Your task to perform on an android device: Open Amazon Image 0: 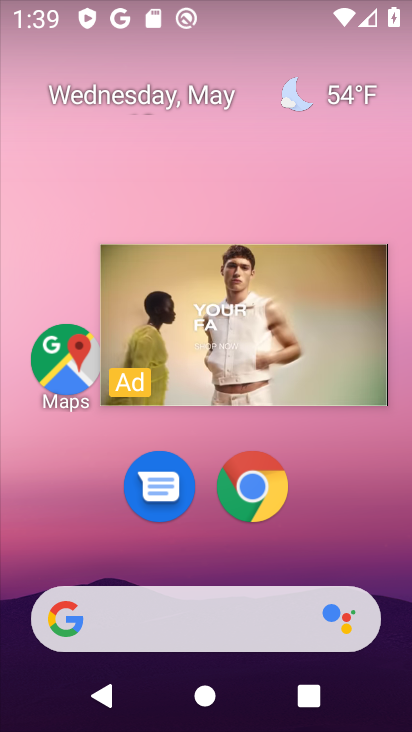
Step 0: click (349, 280)
Your task to perform on an android device: Open Amazon Image 1: 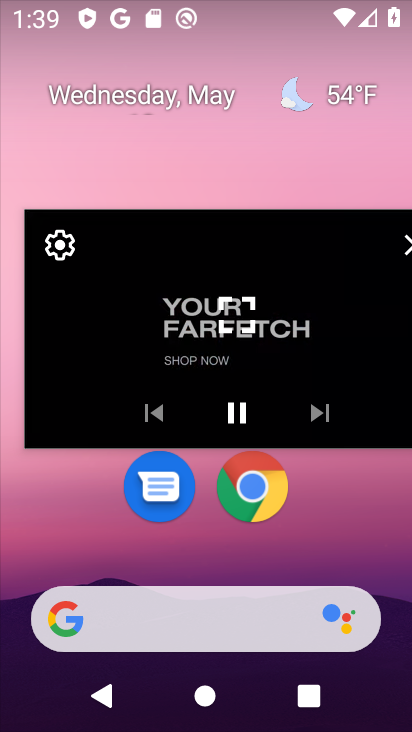
Step 1: click (411, 247)
Your task to perform on an android device: Open Amazon Image 2: 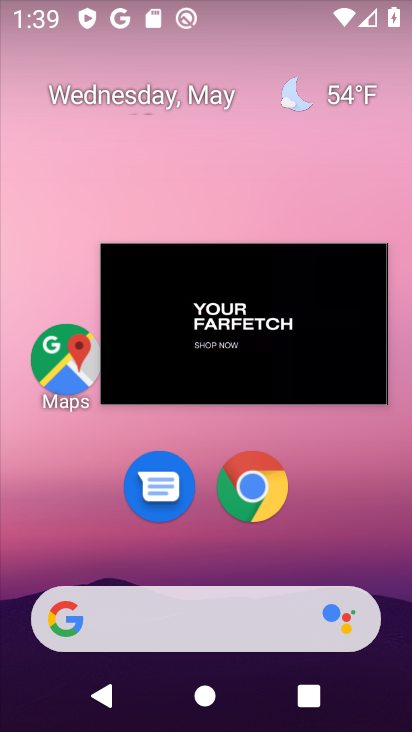
Step 2: drag from (347, 267) to (367, 686)
Your task to perform on an android device: Open Amazon Image 3: 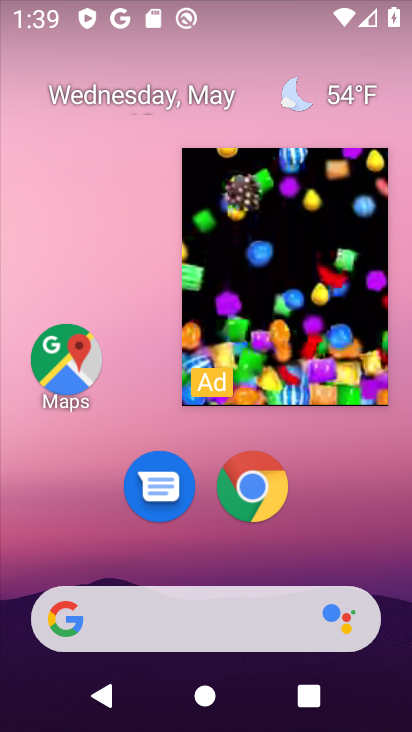
Step 3: drag from (280, 228) to (368, 685)
Your task to perform on an android device: Open Amazon Image 4: 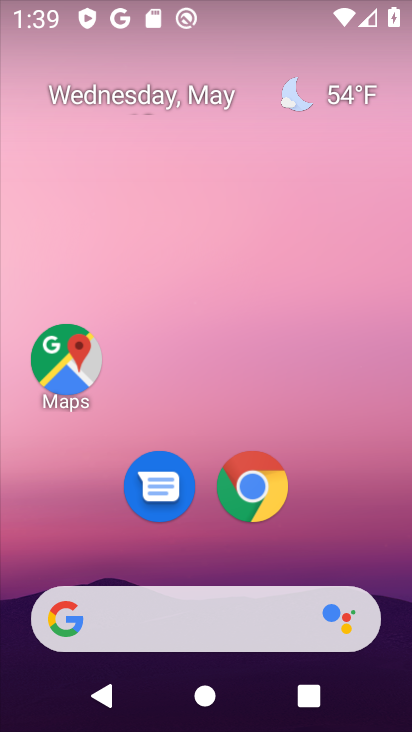
Step 4: click (247, 500)
Your task to perform on an android device: Open Amazon Image 5: 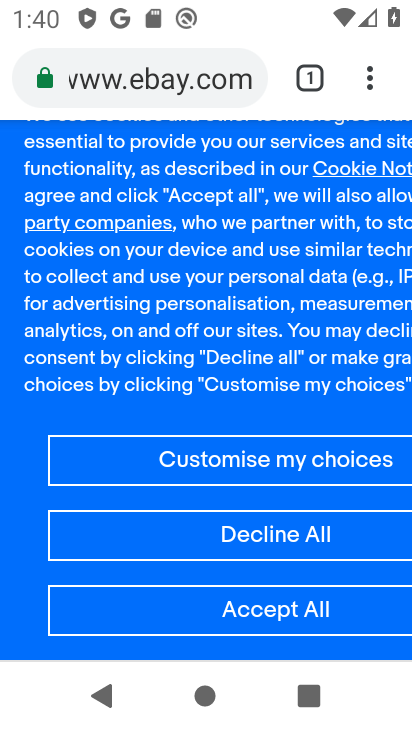
Step 5: click (371, 68)
Your task to perform on an android device: Open Amazon Image 6: 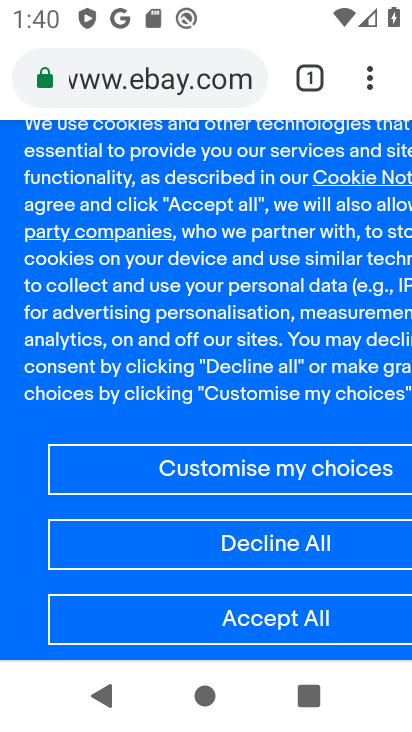
Step 6: click (377, 79)
Your task to perform on an android device: Open Amazon Image 7: 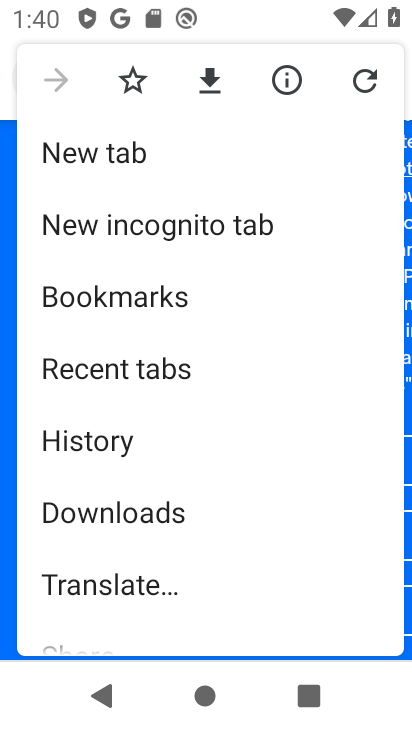
Step 7: click (132, 136)
Your task to perform on an android device: Open Amazon Image 8: 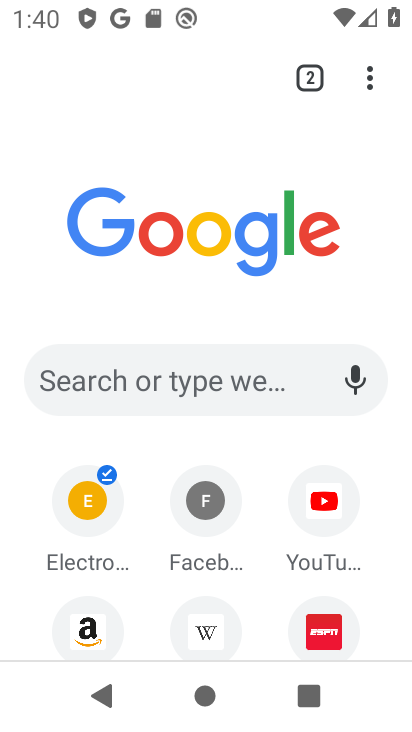
Step 8: click (81, 619)
Your task to perform on an android device: Open Amazon Image 9: 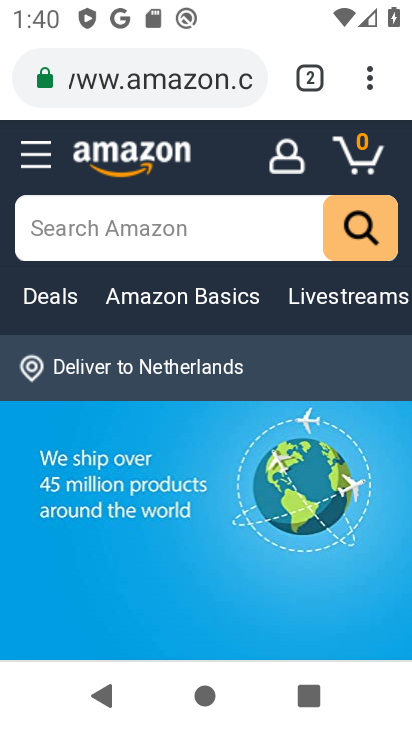
Step 9: task complete